Your task to perform on an android device: open device folders in google photos Image 0: 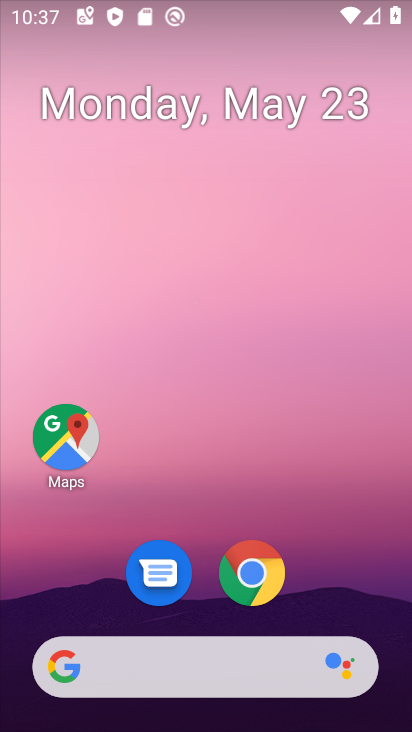
Step 0: drag from (223, 676) to (302, 210)
Your task to perform on an android device: open device folders in google photos Image 1: 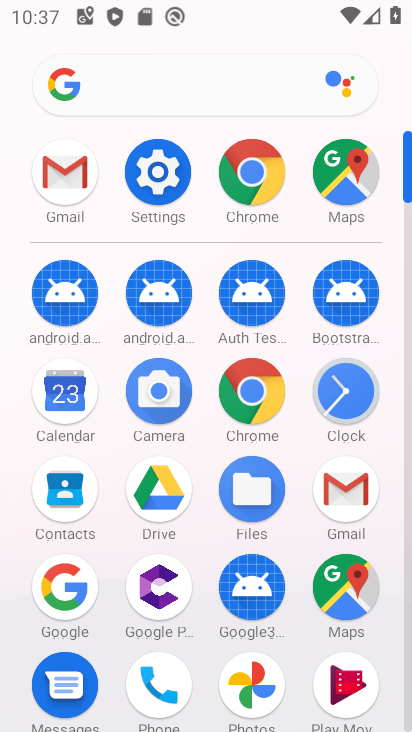
Step 1: drag from (277, 536) to (332, 301)
Your task to perform on an android device: open device folders in google photos Image 2: 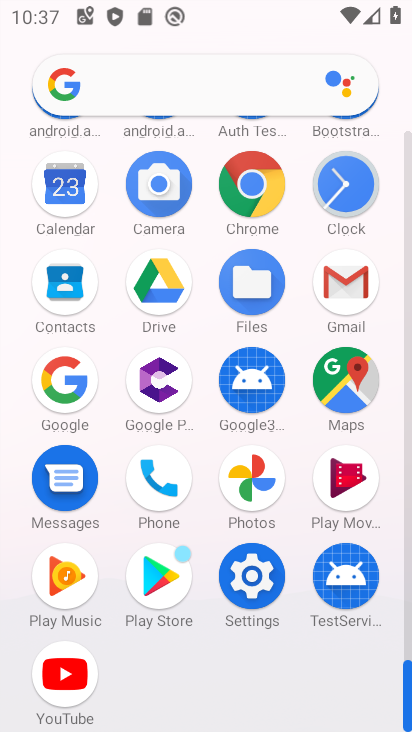
Step 2: click (262, 477)
Your task to perform on an android device: open device folders in google photos Image 3: 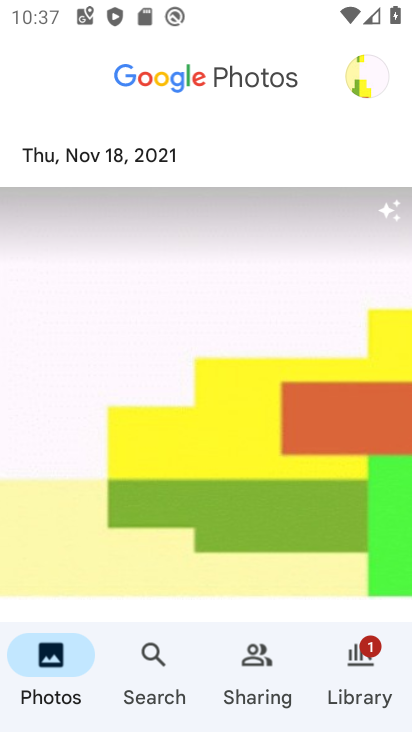
Step 3: click (50, 81)
Your task to perform on an android device: open device folders in google photos Image 4: 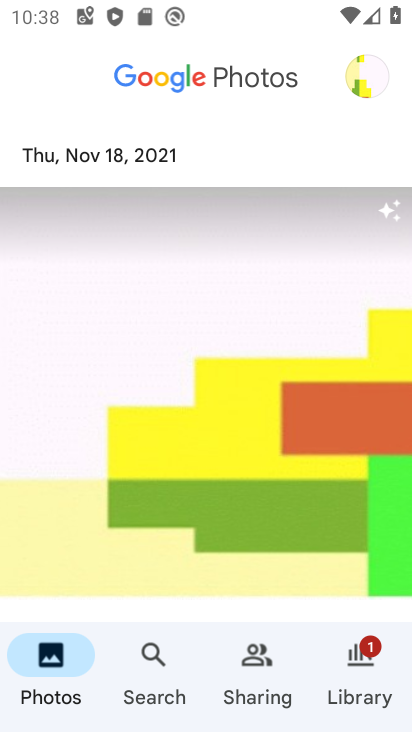
Step 4: click (378, 81)
Your task to perform on an android device: open device folders in google photos Image 5: 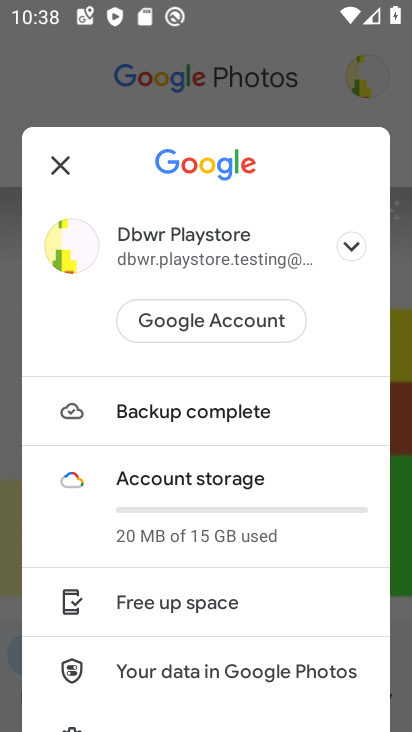
Step 5: task complete